Your task to perform on an android device: turn notification dots off Image 0: 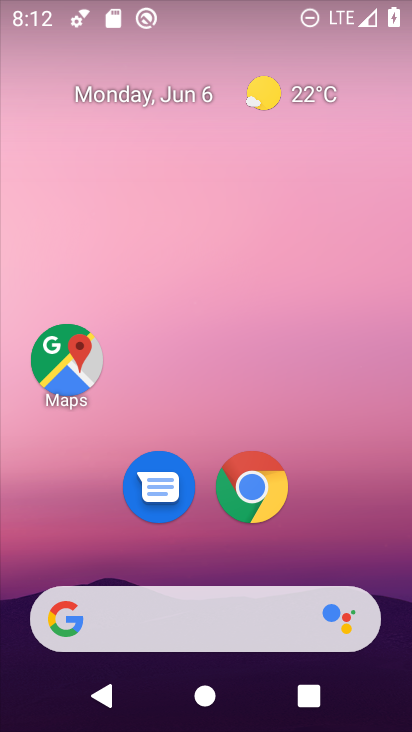
Step 0: drag from (395, 640) to (345, 52)
Your task to perform on an android device: turn notification dots off Image 1: 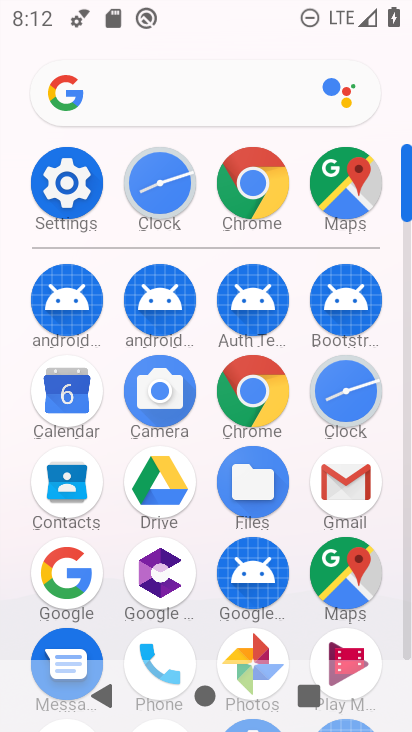
Step 1: click (74, 180)
Your task to perform on an android device: turn notification dots off Image 2: 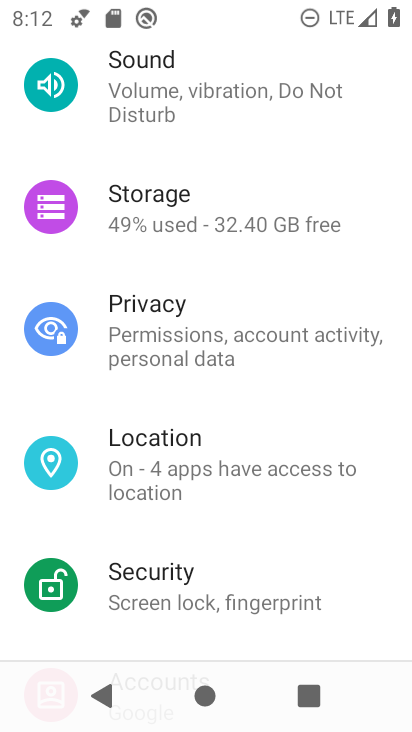
Step 2: drag from (222, 201) to (281, 674)
Your task to perform on an android device: turn notification dots off Image 3: 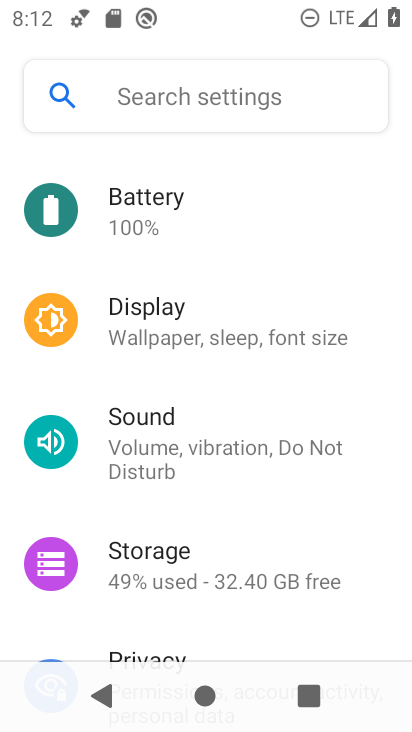
Step 3: drag from (197, 265) to (284, 708)
Your task to perform on an android device: turn notification dots off Image 4: 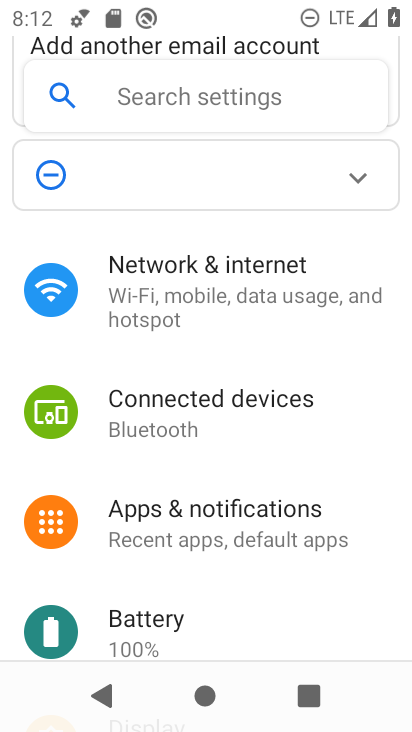
Step 4: click (274, 533)
Your task to perform on an android device: turn notification dots off Image 5: 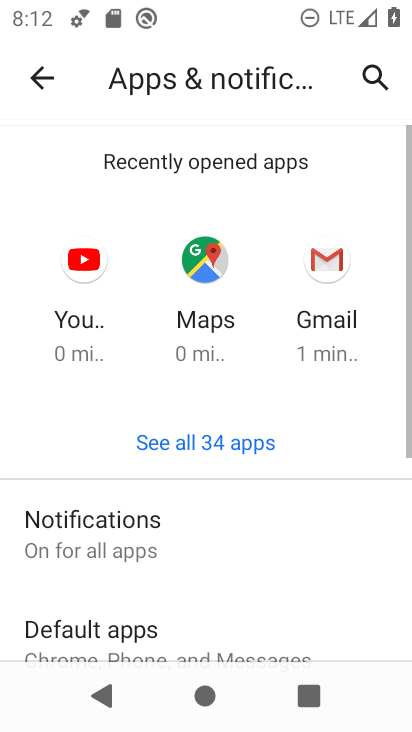
Step 5: click (178, 528)
Your task to perform on an android device: turn notification dots off Image 6: 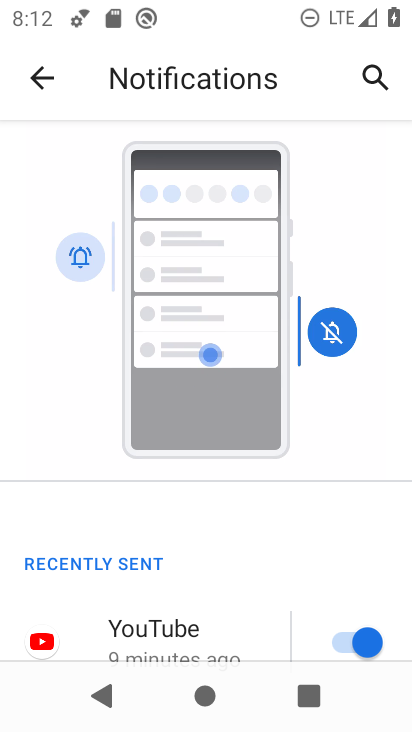
Step 6: click (161, 589)
Your task to perform on an android device: turn notification dots off Image 7: 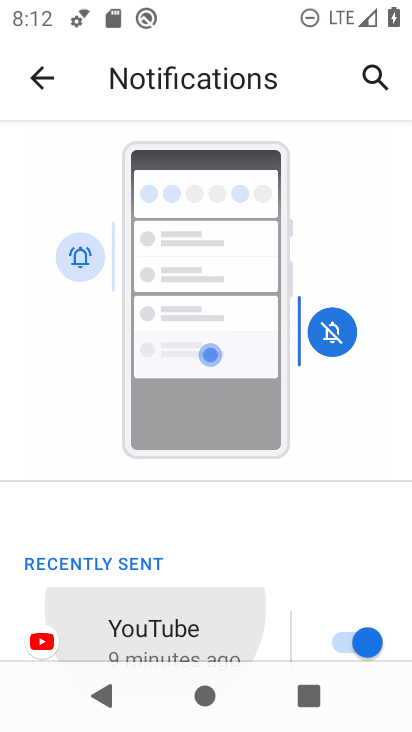
Step 7: drag from (182, 533) to (204, 113)
Your task to perform on an android device: turn notification dots off Image 8: 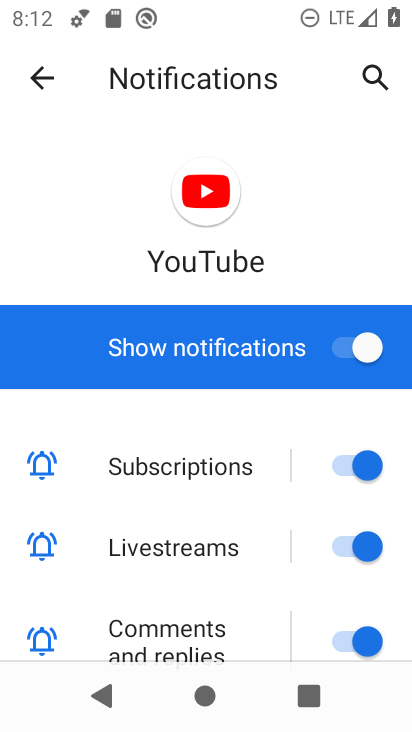
Step 8: press back button
Your task to perform on an android device: turn notification dots off Image 9: 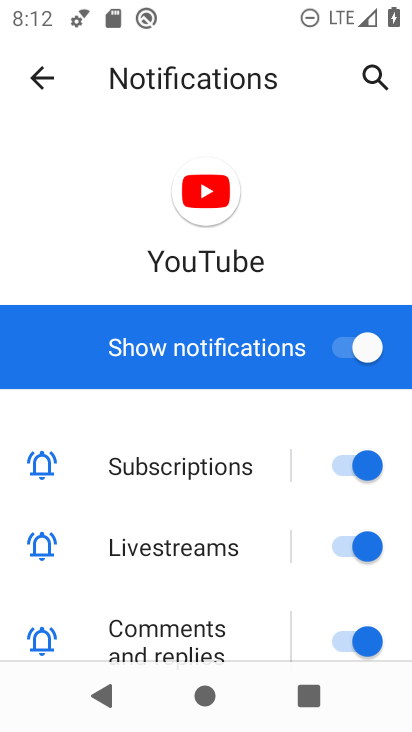
Step 9: drag from (258, 605) to (222, 81)
Your task to perform on an android device: turn notification dots off Image 10: 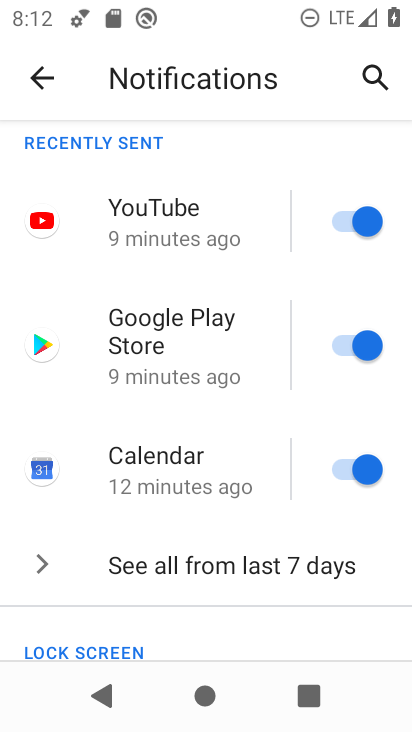
Step 10: drag from (203, 565) to (178, 48)
Your task to perform on an android device: turn notification dots off Image 11: 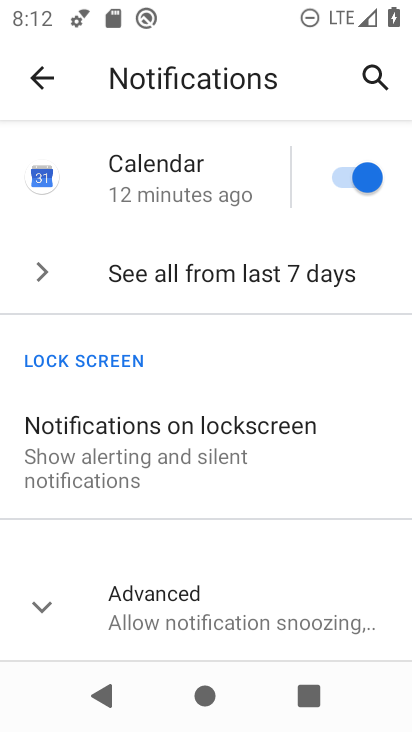
Step 11: click (105, 611)
Your task to perform on an android device: turn notification dots off Image 12: 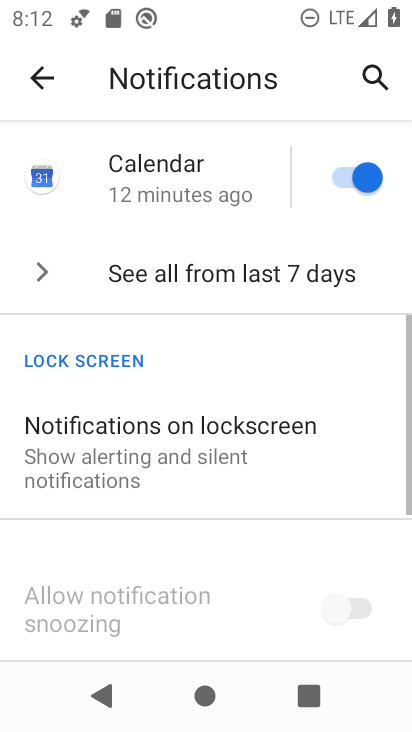
Step 12: drag from (172, 634) to (188, 117)
Your task to perform on an android device: turn notification dots off Image 13: 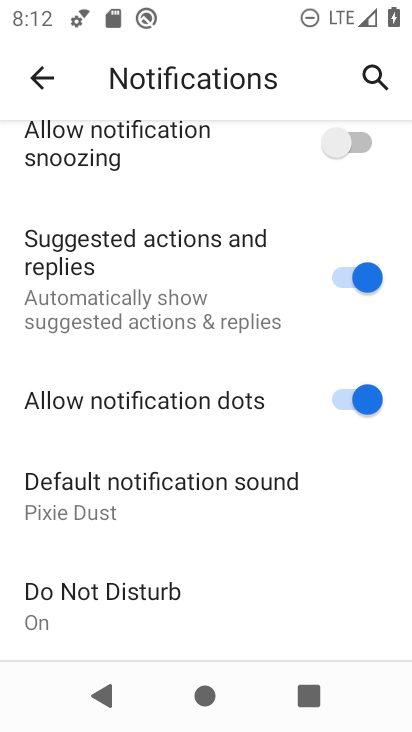
Step 13: click (324, 388)
Your task to perform on an android device: turn notification dots off Image 14: 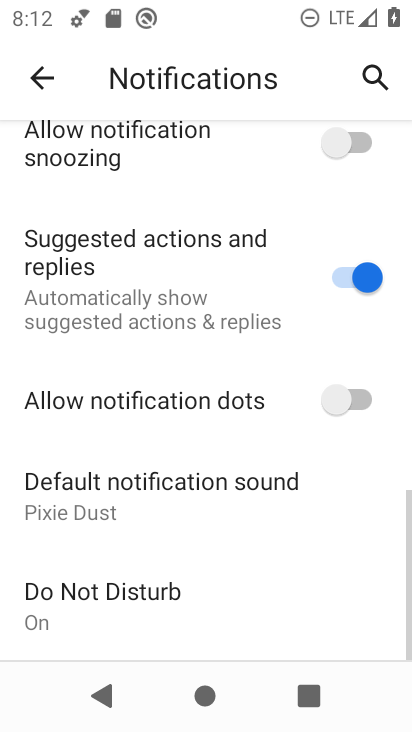
Step 14: task complete